Your task to perform on an android device: Add "usb-c to usb-a" to the cart on walmart, then select checkout. Image 0: 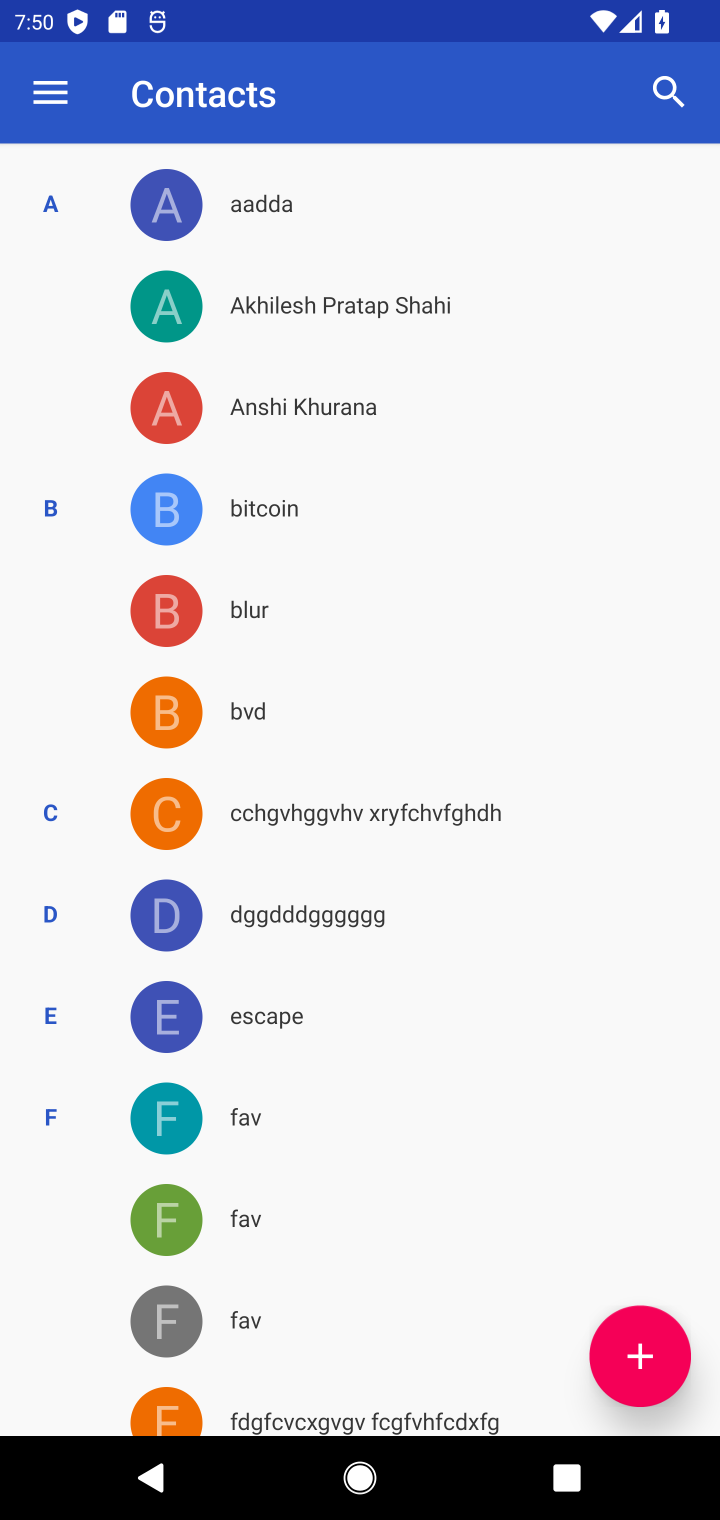
Step 0: press home button
Your task to perform on an android device: Add "usb-c to usb-a" to the cart on walmart, then select checkout. Image 1: 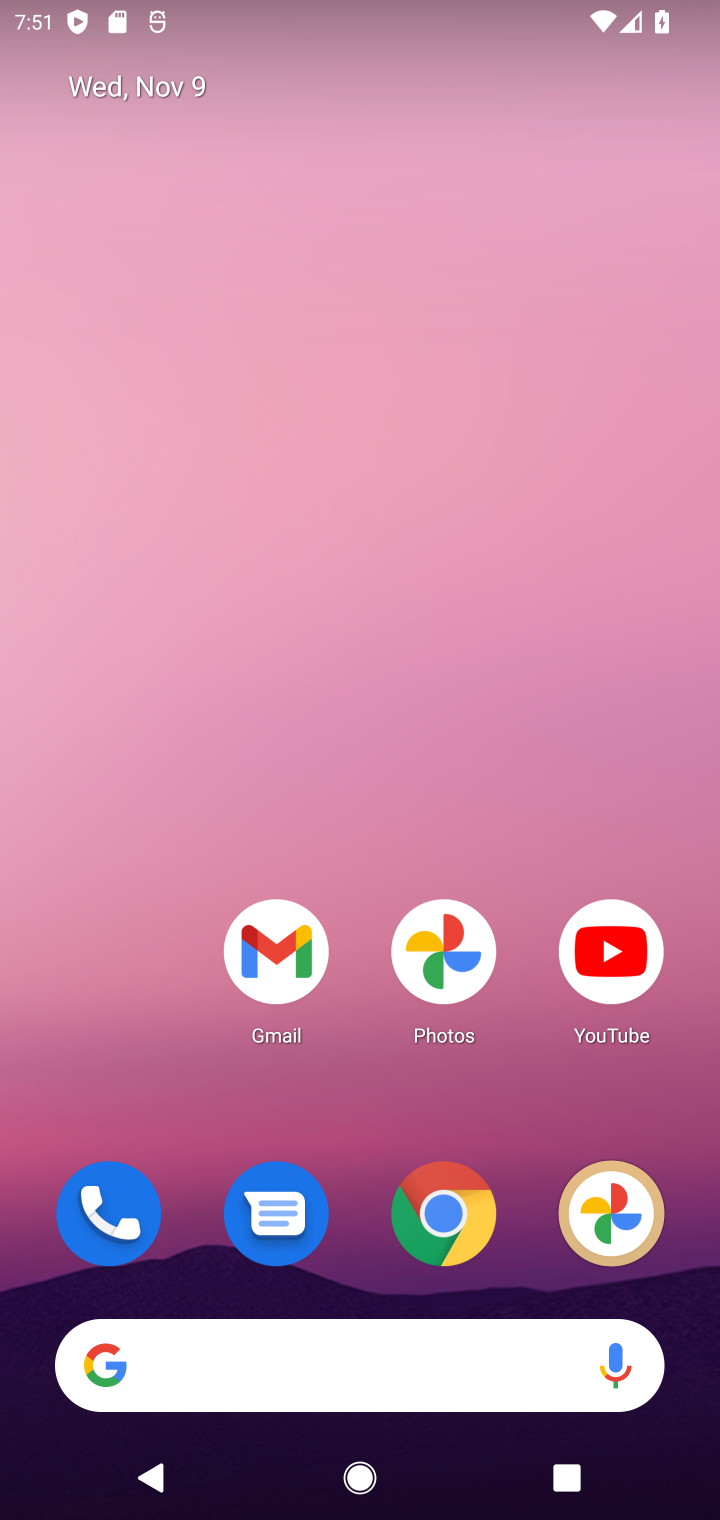
Step 1: click (468, 1236)
Your task to perform on an android device: Add "usb-c to usb-a" to the cart on walmart, then select checkout. Image 2: 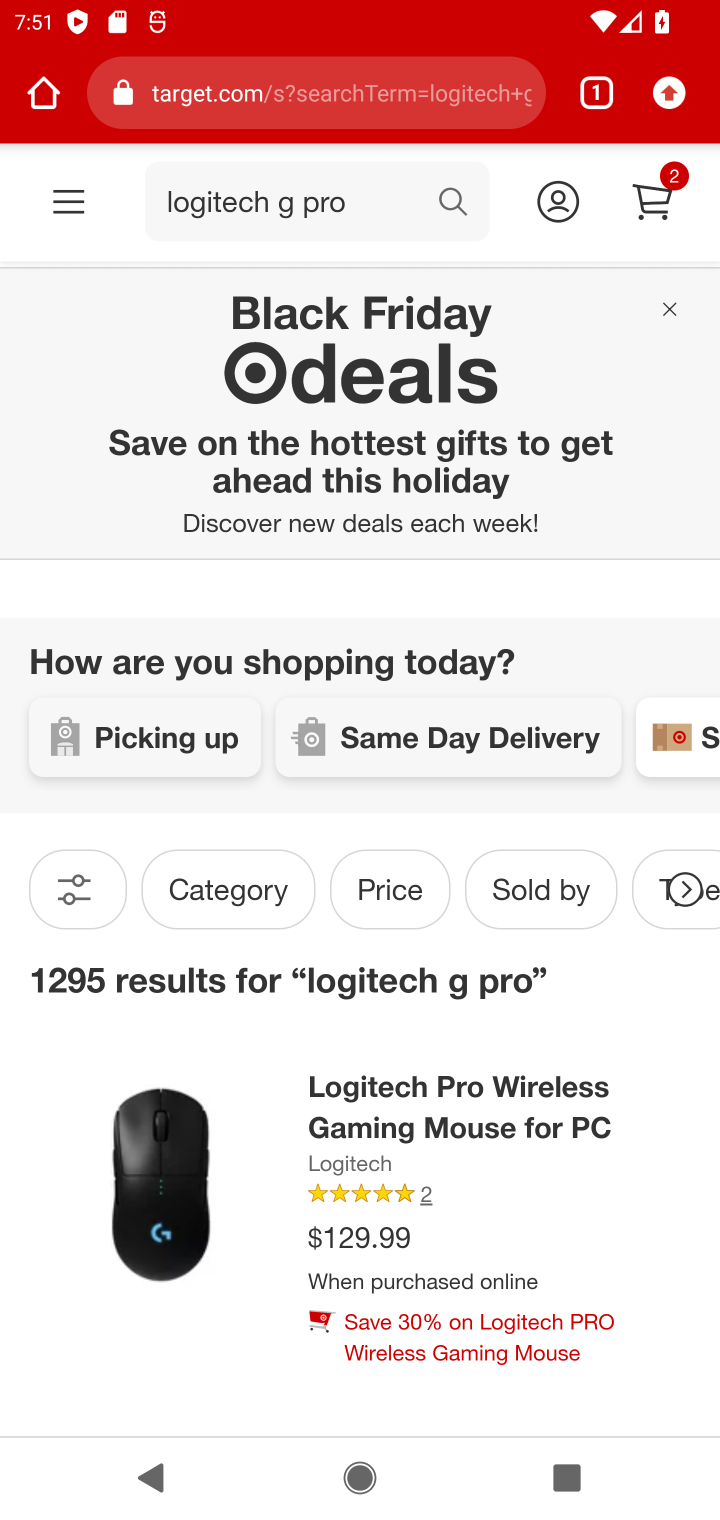
Step 2: click (288, 105)
Your task to perform on an android device: Add "usb-c to usb-a" to the cart on walmart, then select checkout. Image 3: 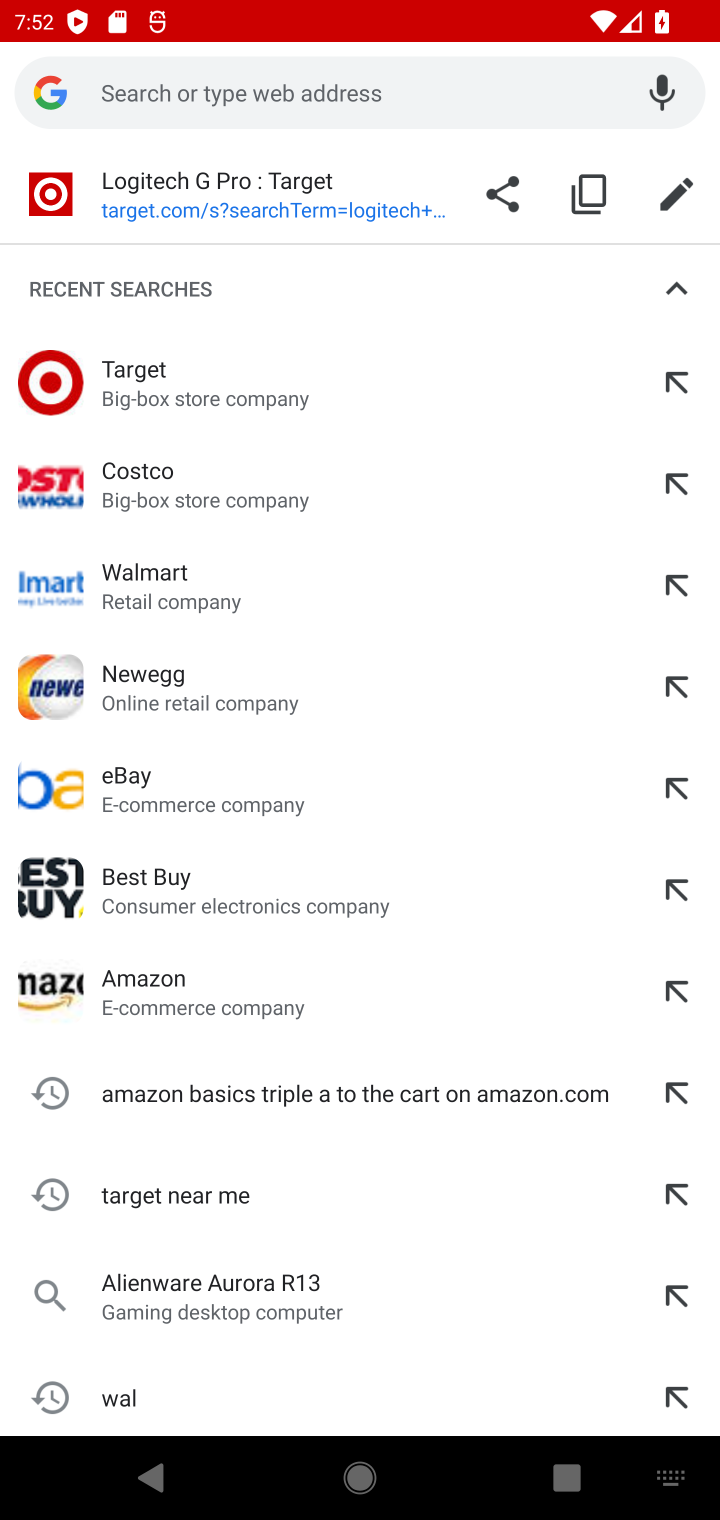
Step 3: click (148, 585)
Your task to perform on an android device: Add "usb-c to usb-a" to the cart on walmart, then select checkout. Image 4: 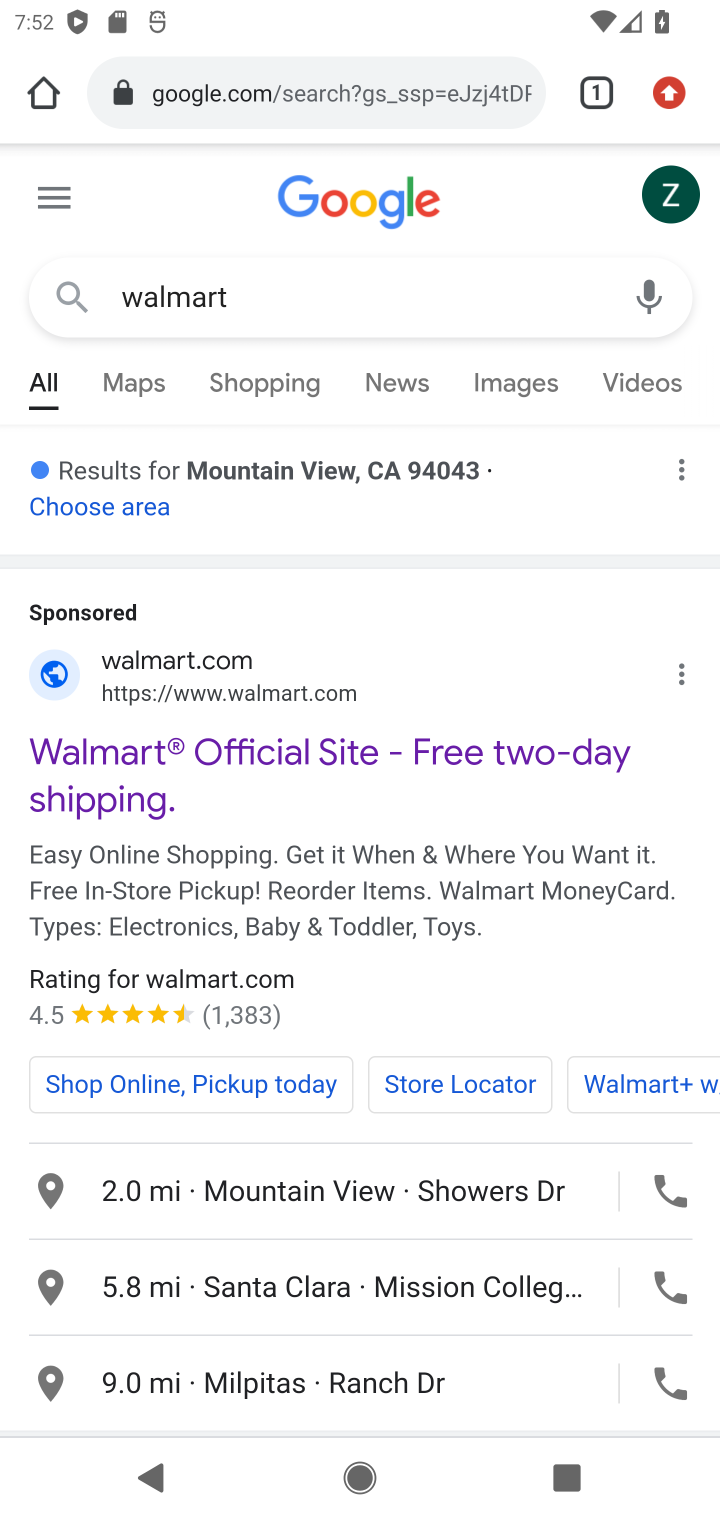
Step 4: drag from (163, 951) to (325, 471)
Your task to perform on an android device: Add "usb-c to usb-a" to the cart on walmart, then select checkout. Image 5: 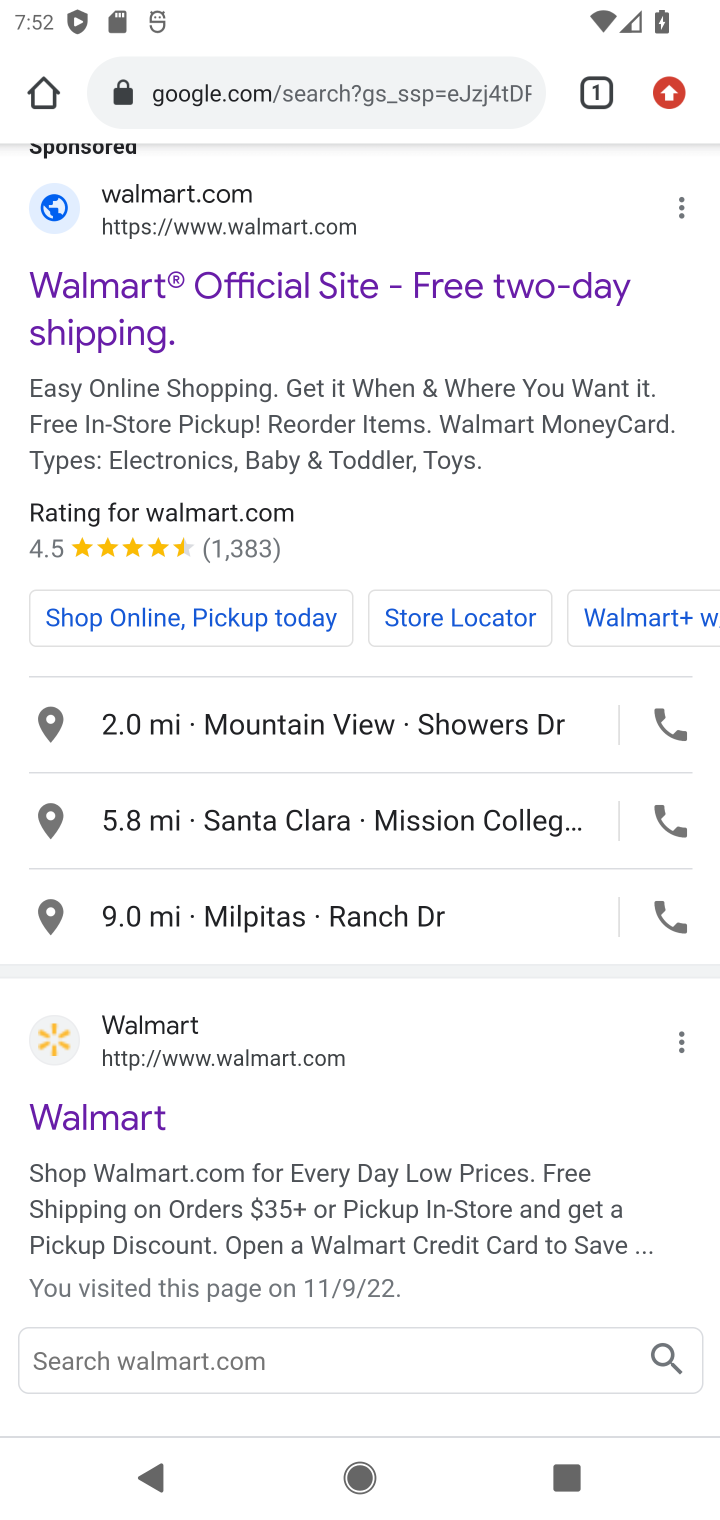
Step 5: click (65, 1120)
Your task to perform on an android device: Add "usb-c to usb-a" to the cart on walmart, then select checkout. Image 6: 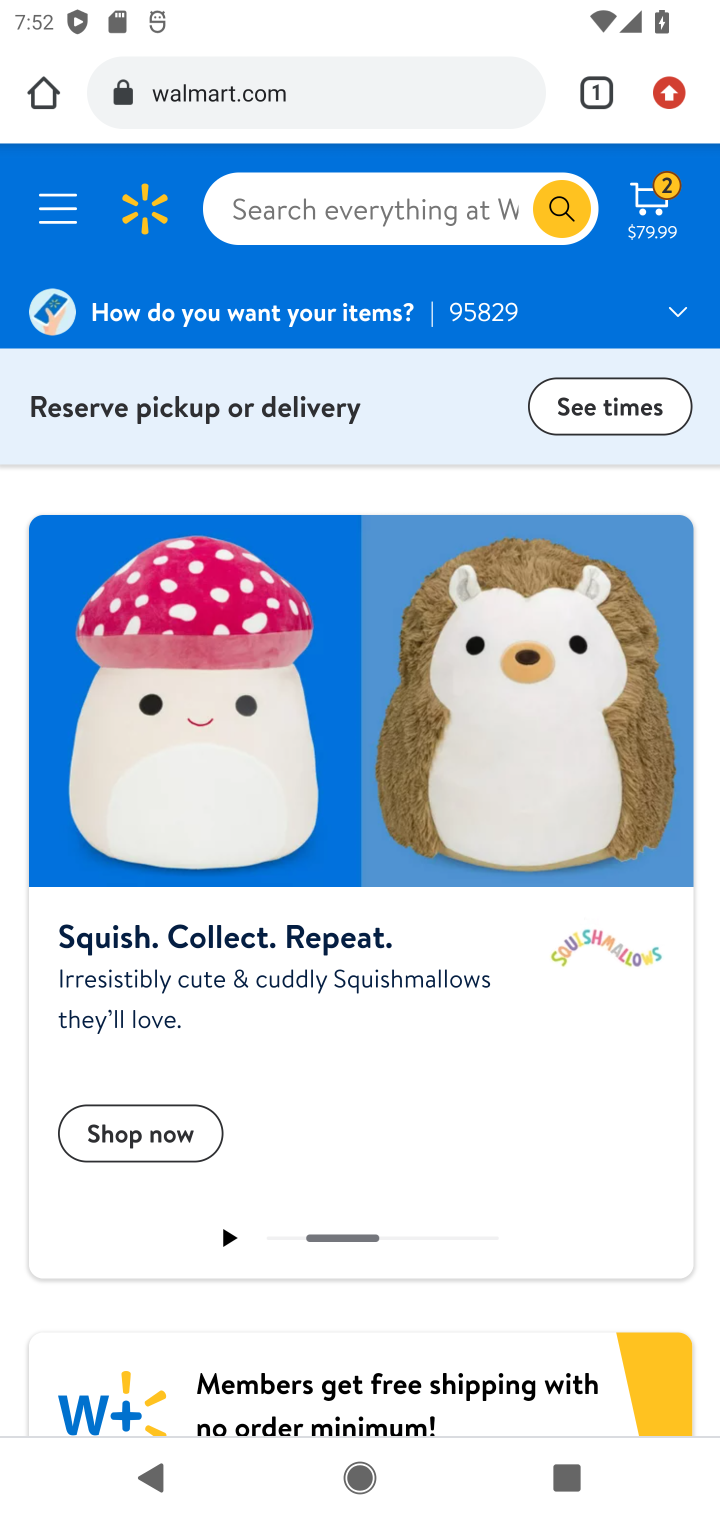
Step 6: click (388, 208)
Your task to perform on an android device: Add "usb-c to usb-a" to the cart on walmart, then select checkout. Image 7: 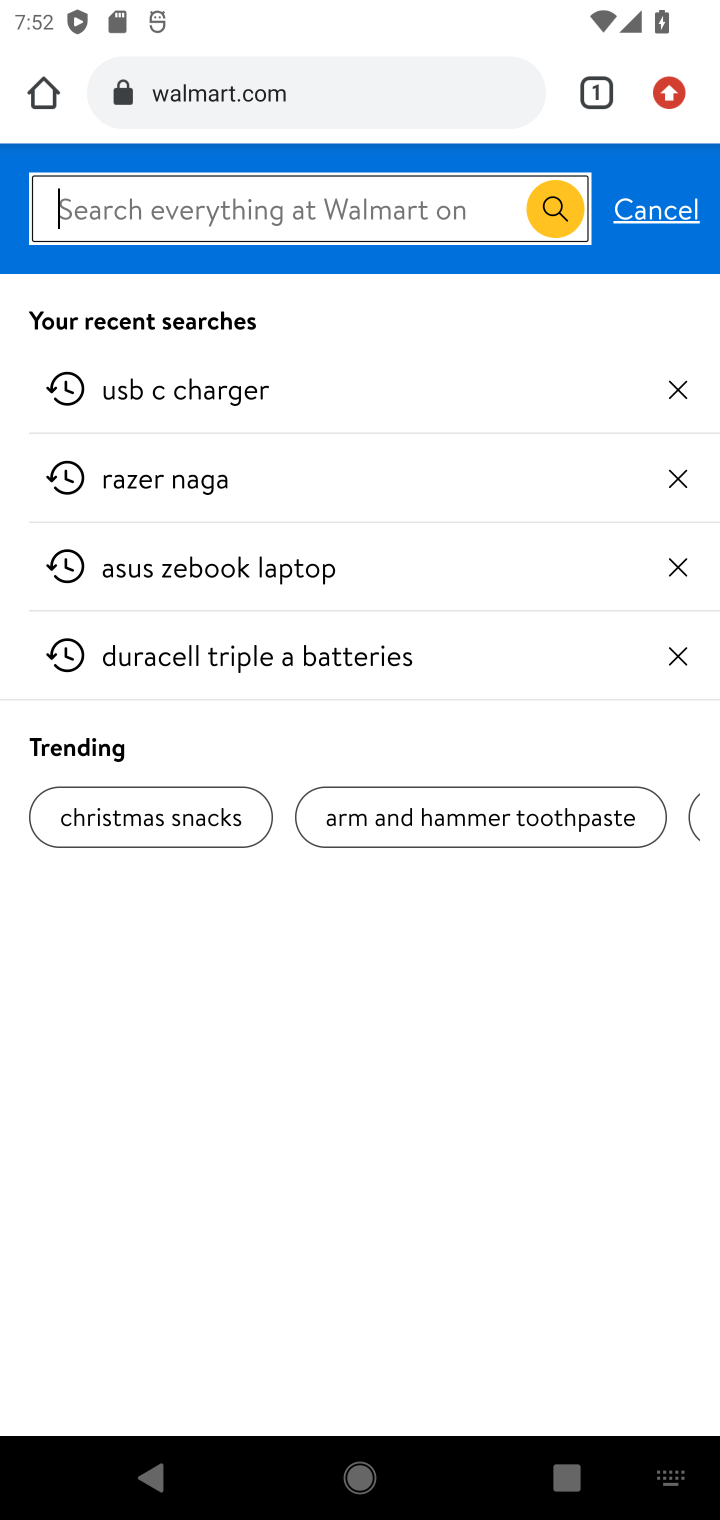
Step 7: type "usb c to usb a "
Your task to perform on an android device: Add "usb-c to usb-a" to the cart on walmart, then select checkout. Image 8: 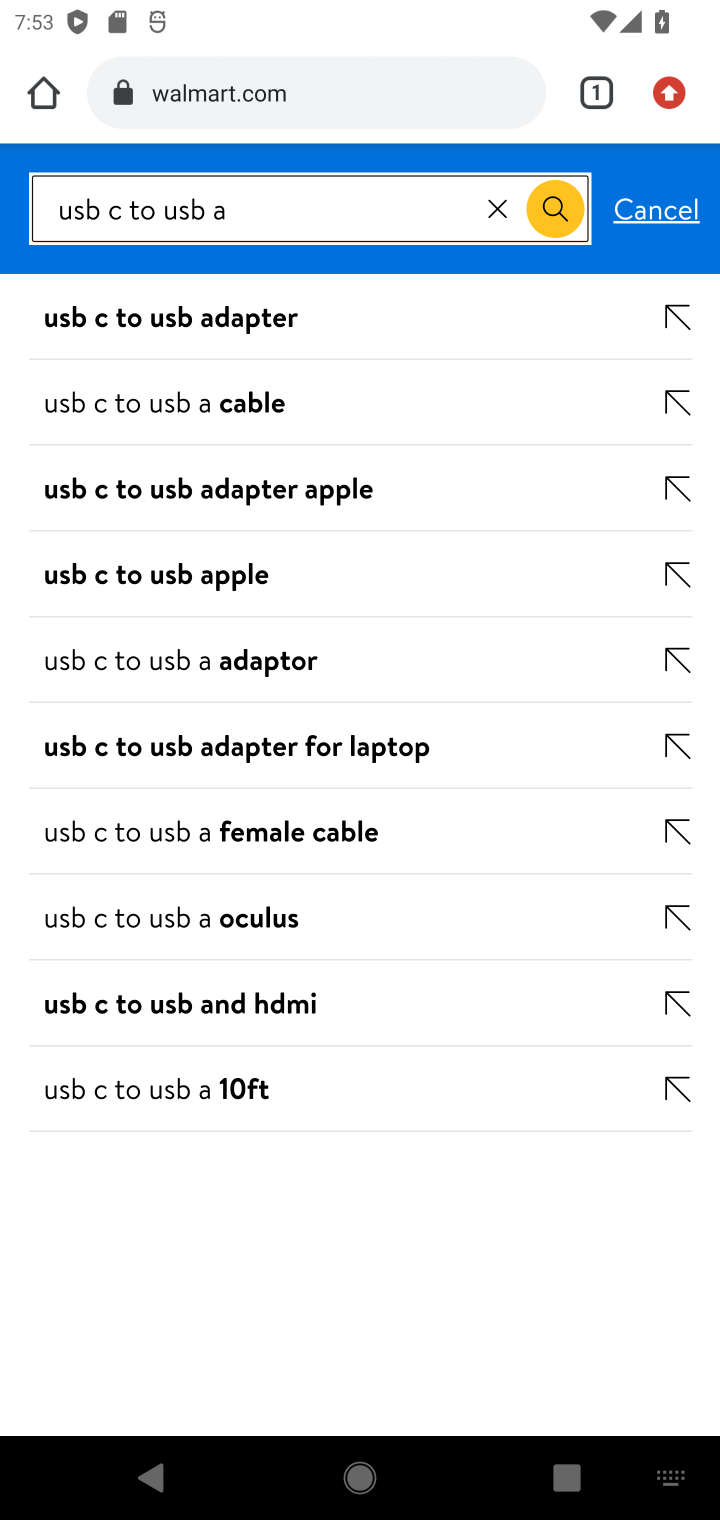
Step 8: click (72, 323)
Your task to perform on an android device: Add "usb-c to usb-a" to the cart on walmart, then select checkout. Image 9: 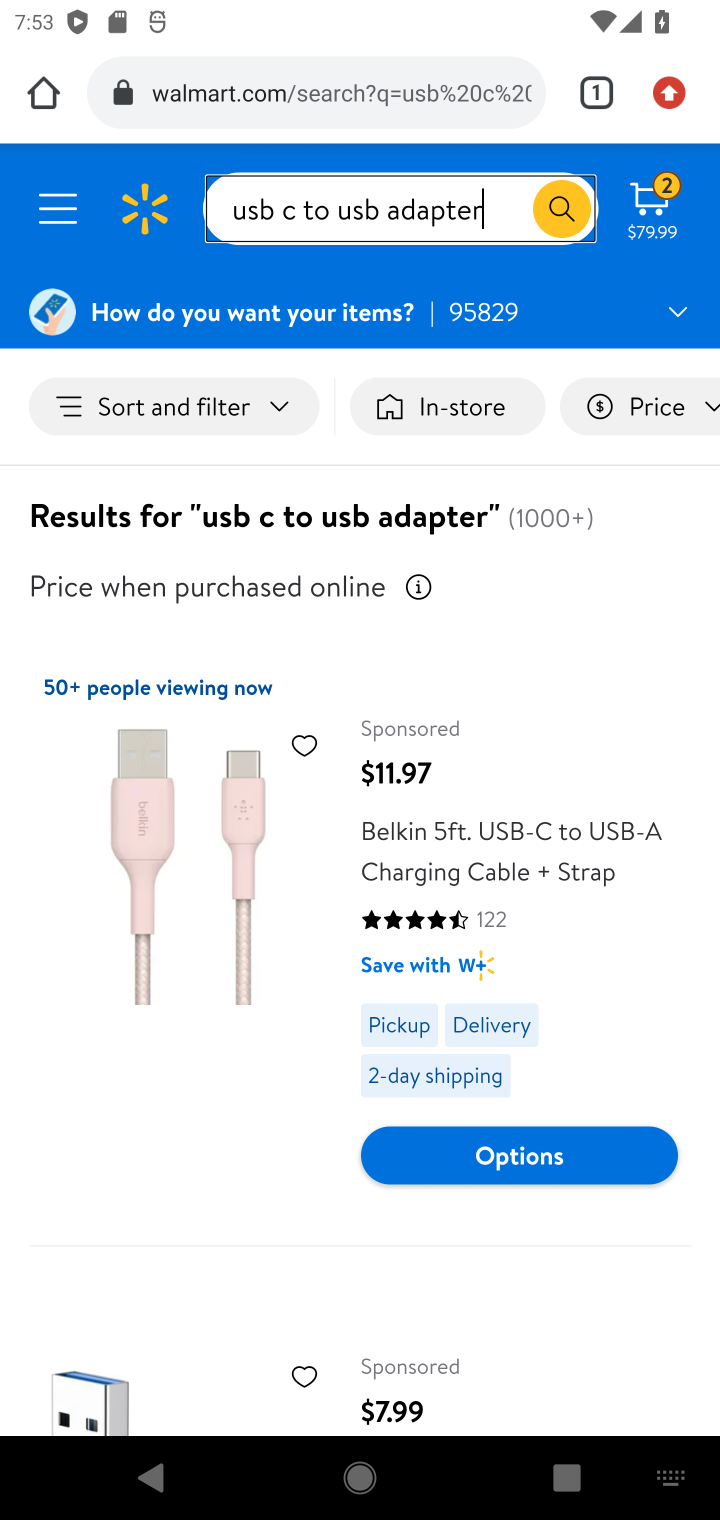
Step 9: click (405, 881)
Your task to perform on an android device: Add "usb-c to usb-a" to the cart on walmart, then select checkout. Image 10: 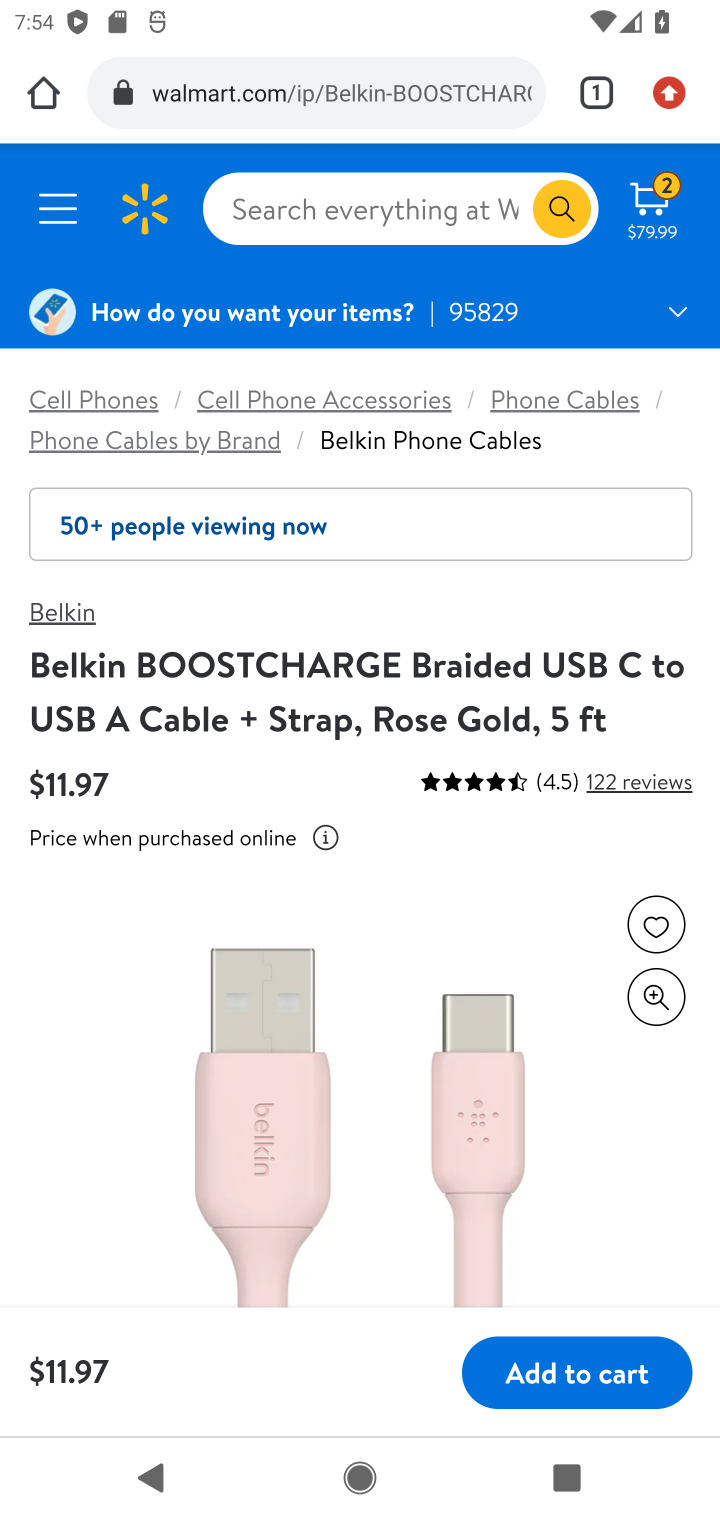
Step 10: click (593, 1393)
Your task to perform on an android device: Add "usb-c to usb-a" to the cart on walmart, then select checkout. Image 11: 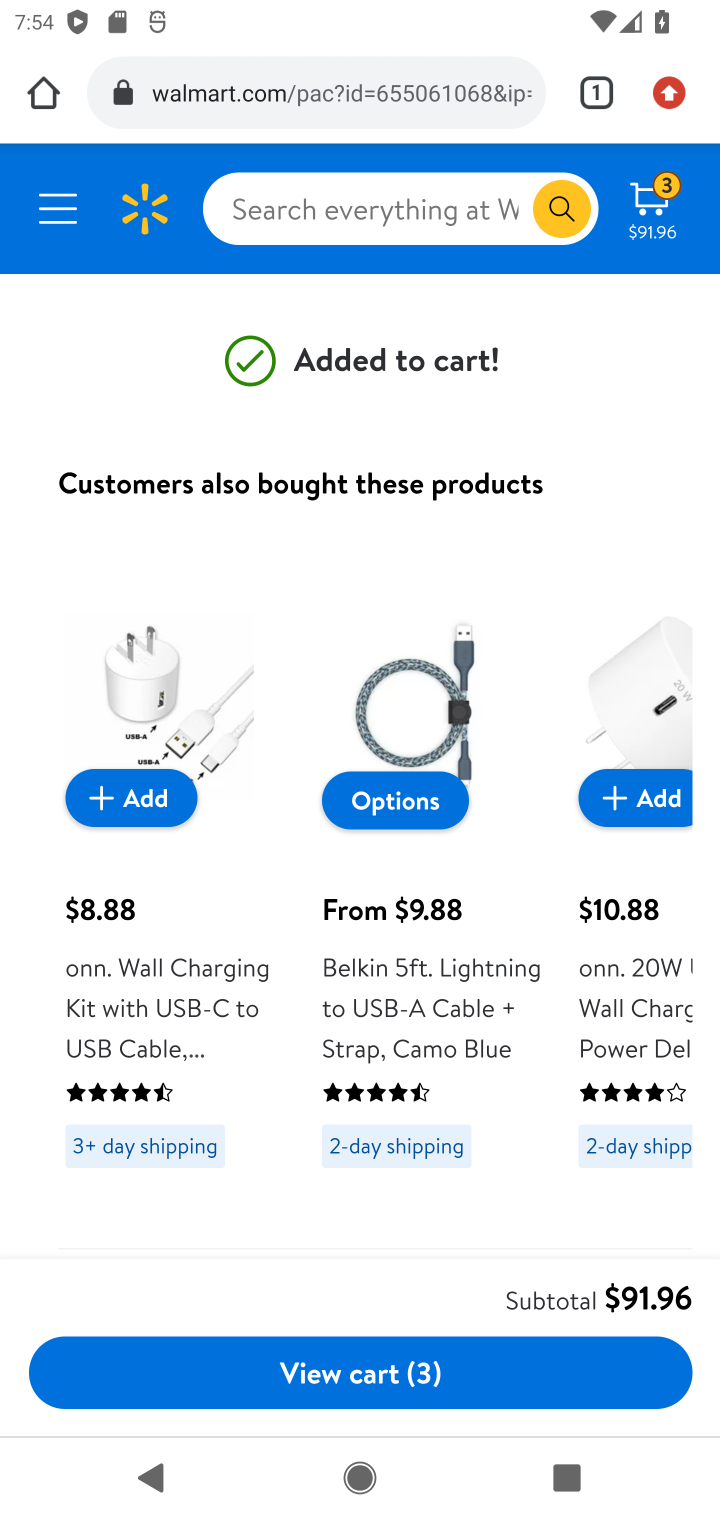
Step 11: click (643, 201)
Your task to perform on an android device: Add "usb-c to usb-a" to the cart on walmart, then select checkout. Image 12: 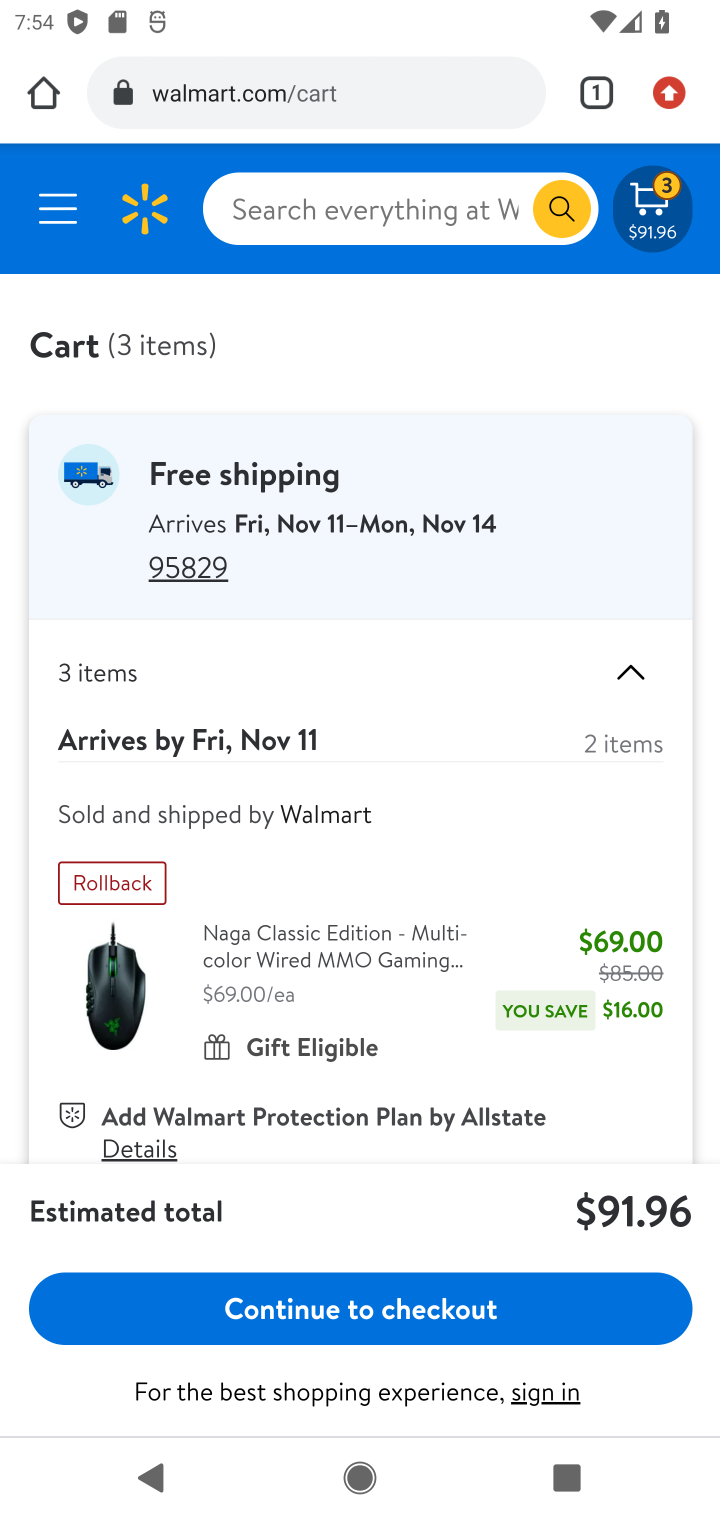
Step 12: click (332, 1309)
Your task to perform on an android device: Add "usb-c to usb-a" to the cart on walmart, then select checkout. Image 13: 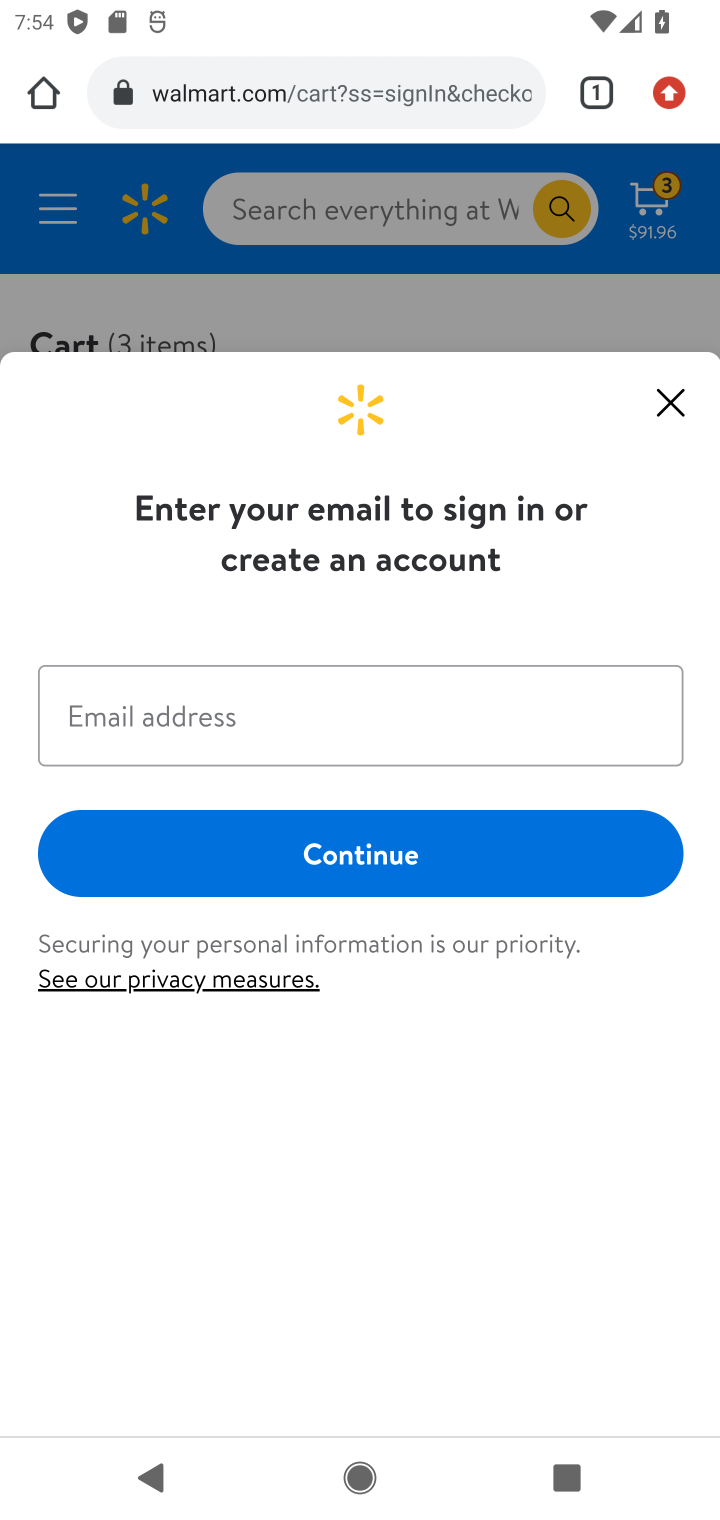
Step 13: task complete